Your task to perform on an android device: turn pop-ups off in chrome Image 0: 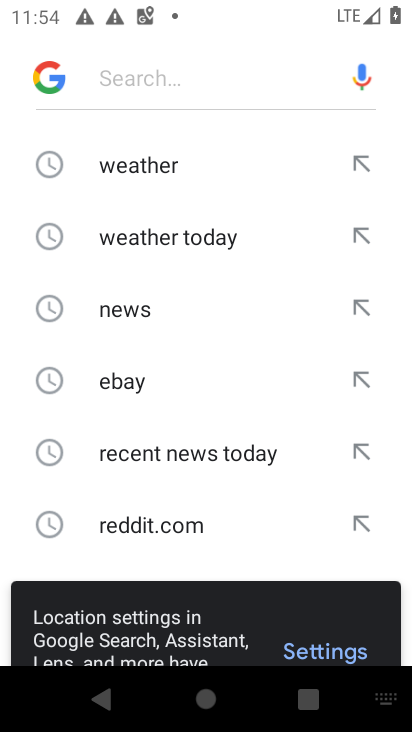
Step 0: press home button
Your task to perform on an android device: turn pop-ups off in chrome Image 1: 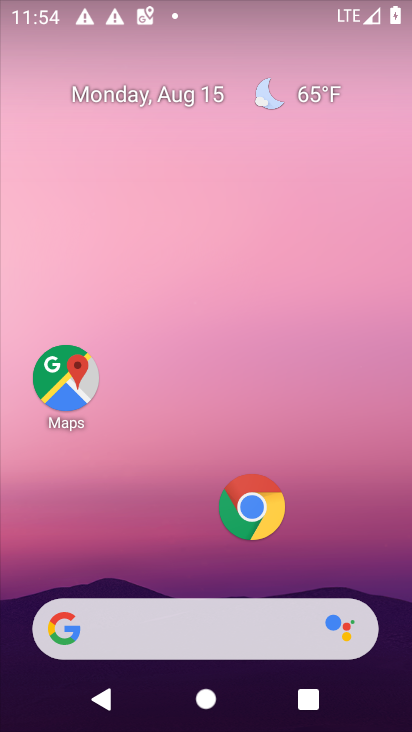
Step 1: click (257, 502)
Your task to perform on an android device: turn pop-ups off in chrome Image 2: 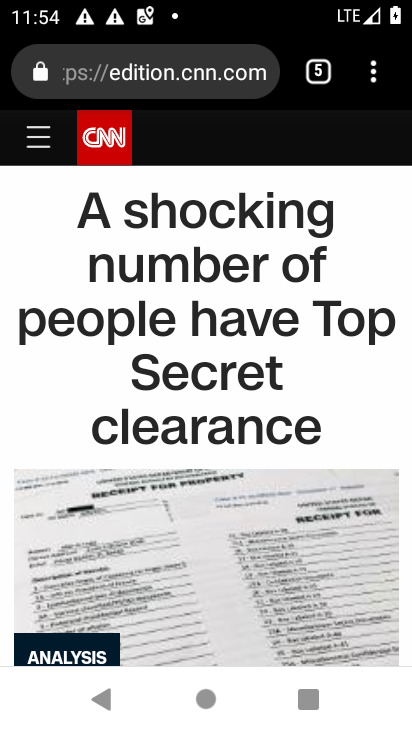
Step 2: click (377, 68)
Your task to perform on an android device: turn pop-ups off in chrome Image 3: 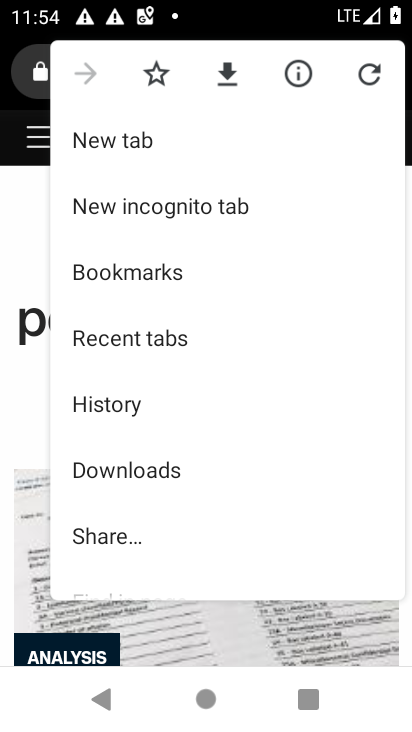
Step 3: drag from (225, 489) to (188, 272)
Your task to perform on an android device: turn pop-ups off in chrome Image 4: 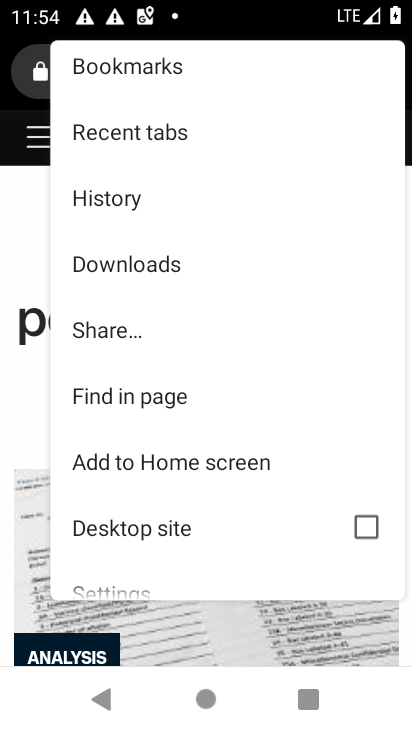
Step 4: drag from (236, 534) to (231, 254)
Your task to perform on an android device: turn pop-ups off in chrome Image 5: 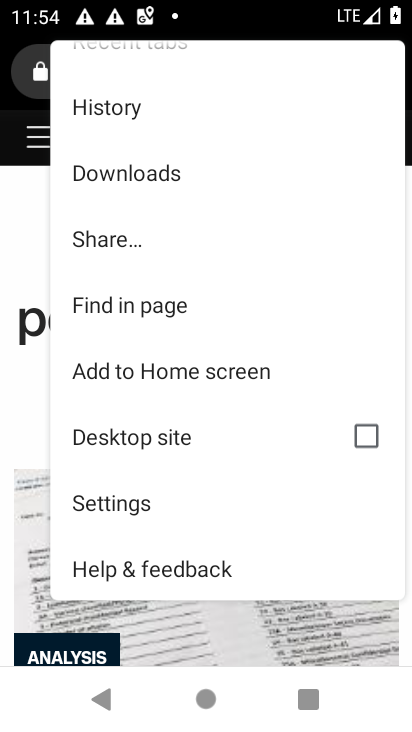
Step 5: click (112, 507)
Your task to perform on an android device: turn pop-ups off in chrome Image 6: 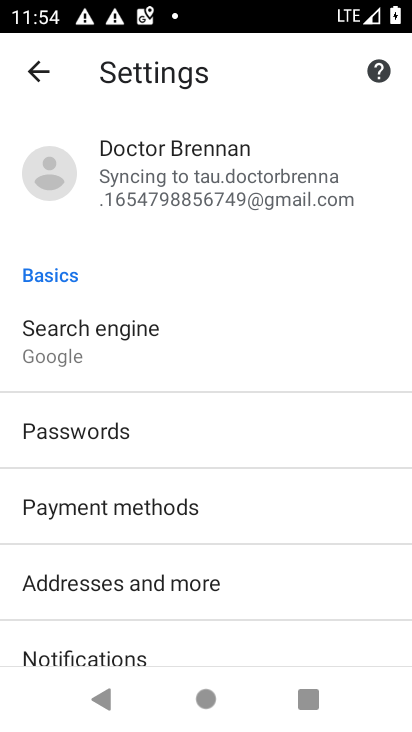
Step 6: drag from (247, 579) to (240, 336)
Your task to perform on an android device: turn pop-ups off in chrome Image 7: 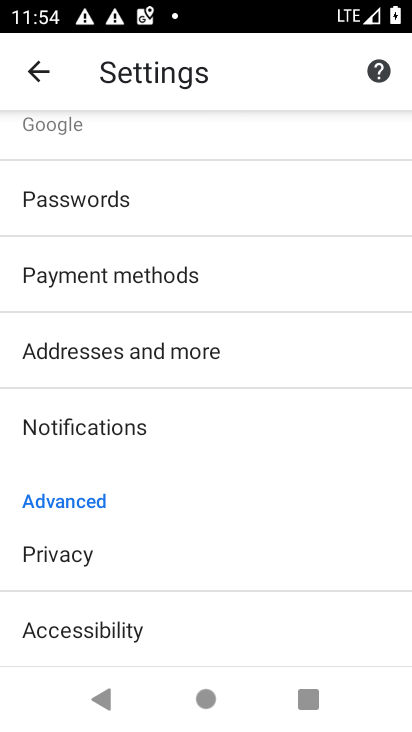
Step 7: drag from (201, 570) to (190, 357)
Your task to perform on an android device: turn pop-ups off in chrome Image 8: 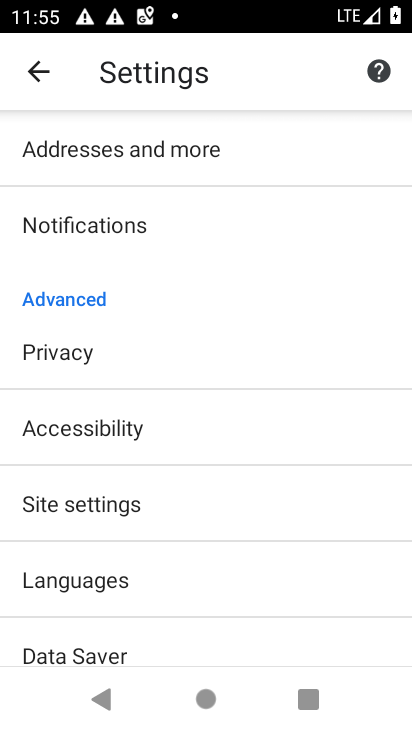
Step 8: click (89, 500)
Your task to perform on an android device: turn pop-ups off in chrome Image 9: 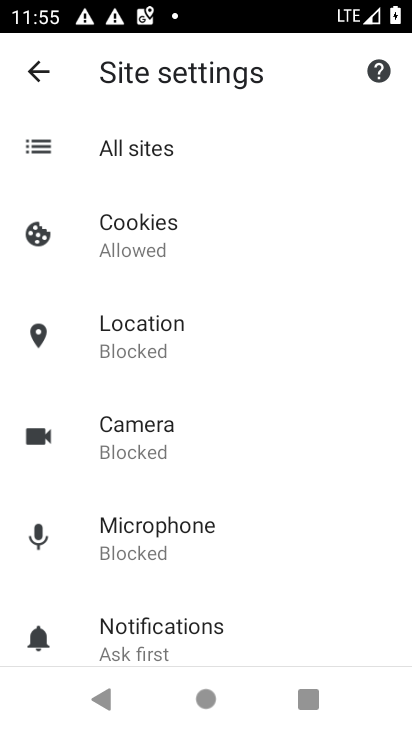
Step 9: drag from (195, 577) to (206, 212)
Your task to perform on an android device: turn pop-ups off in chrome Image 10: 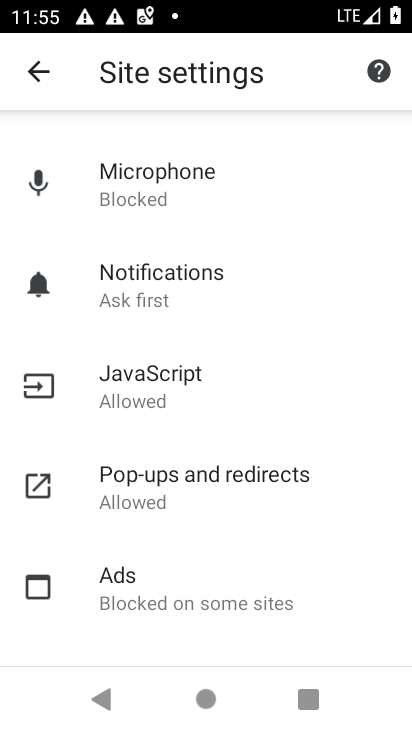
Step 10: click (157, 476)
Your task to perform on an android device: turn pop-ups off in chrome Image 11: 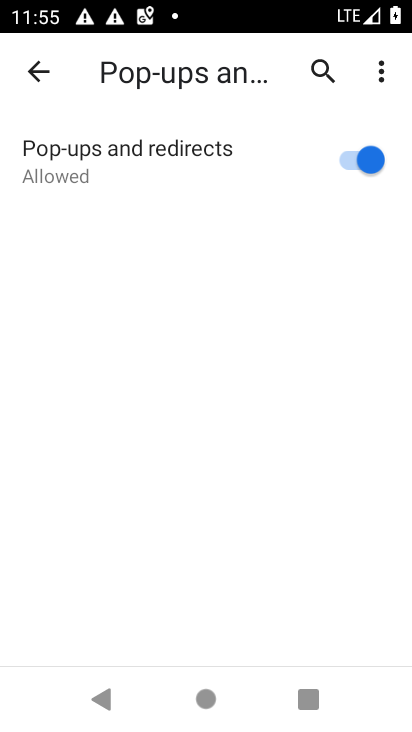
Step 11: click (371, 157)
Your task to perform on an android device: turn pop-ups off in chrome Image 12: 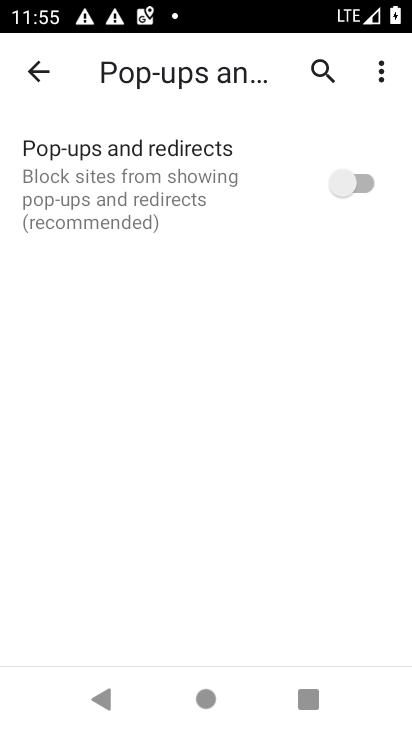
Step 12: task complete